Your task to perform on an android device: toggle priority inbox in the gmail app Image 0: 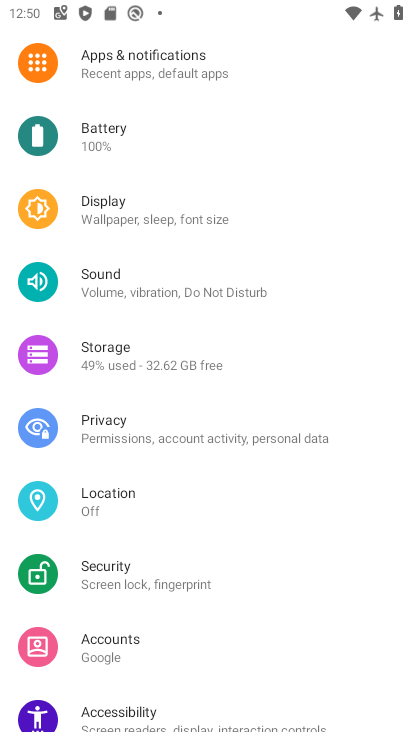
Step 0: press home button
Your task to perform on an android device: toggle priority inbox in the gmail app Image 1: 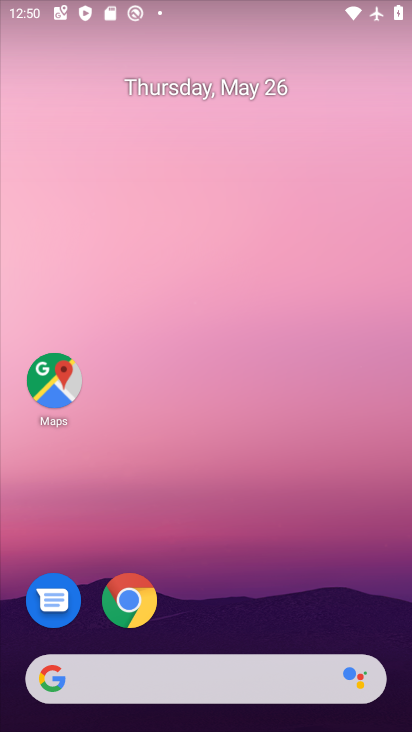
Step 1: drag from (264, 561) to (253, 121)
Your task to perform on an android device: toggle priority inbox in the gmail app Image 2: 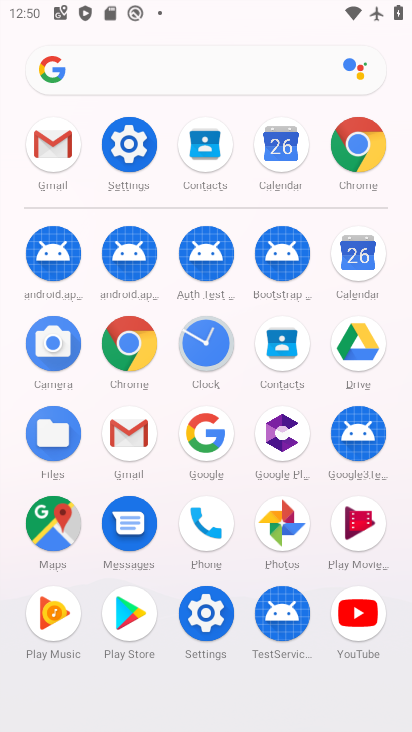
Step 2: click (47, 152)
Your task to perform on an android device: toggle priority inbox in the gmail app Image 3: 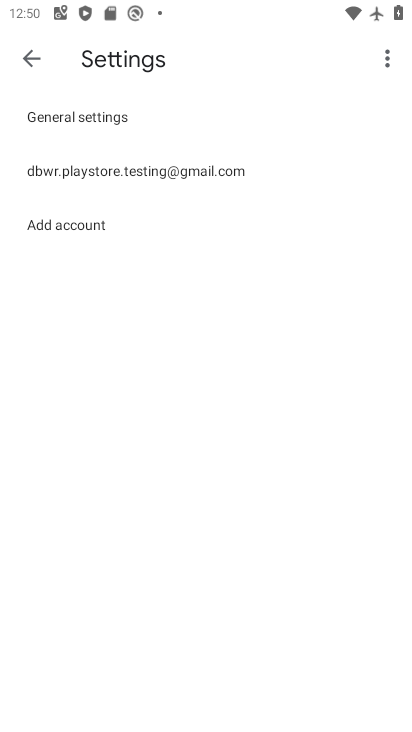
Step 3: click (80, 175)
Your task to perform on an android device: toggle priority inbox in the gmail app Image 4: 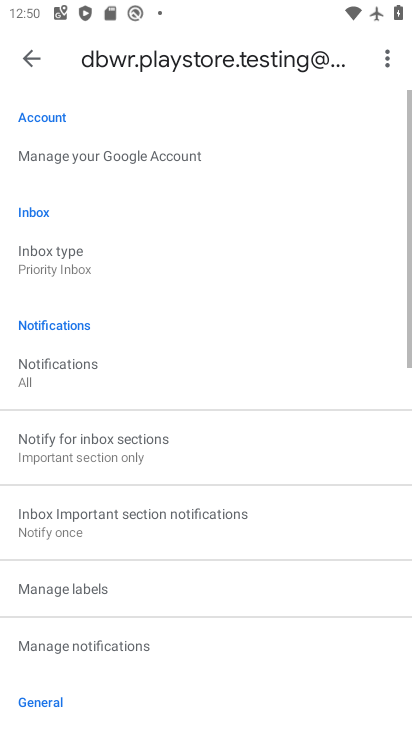
Step 4: click (58, 247)
Your task to perform on an android device: toggle priority inbox in the gmail app Image 5: 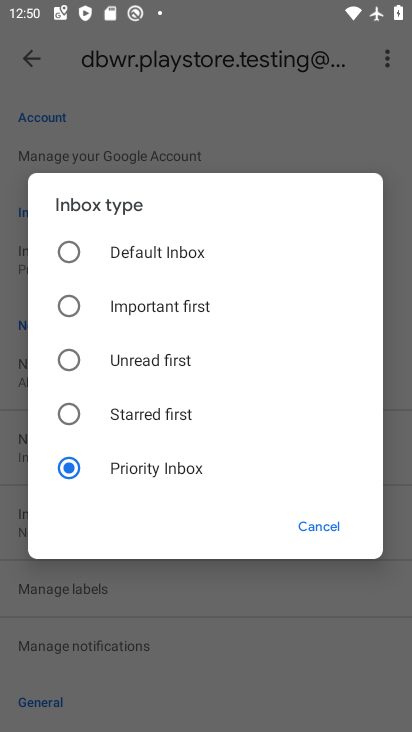
Step 5: click (122, 253)
Your task to perform on an android device: toggle priority inbox in the gmail app Image 6: 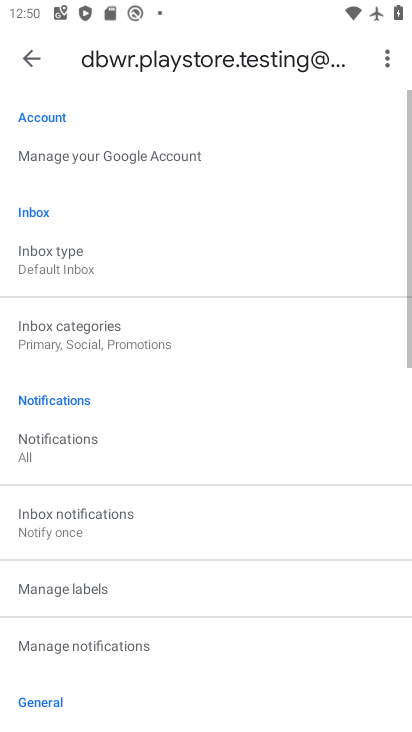
Step 6: task complete